Your task to perform on an android device: Go to Yahoo.com Image 0: 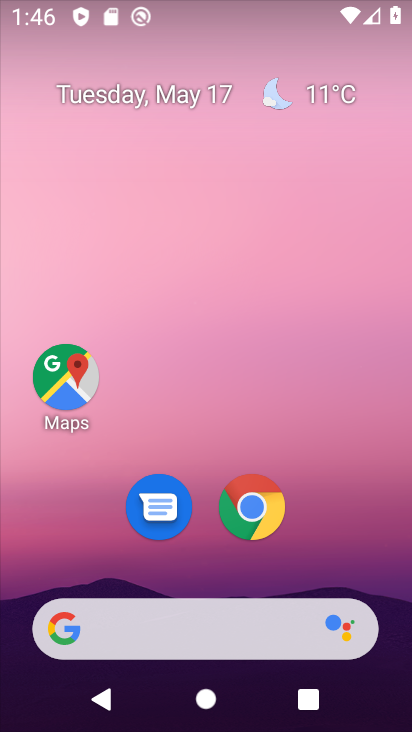
Step 0: click (255, 501)
Your task to perform on an android device: Go to Yahoo.com Image 1: 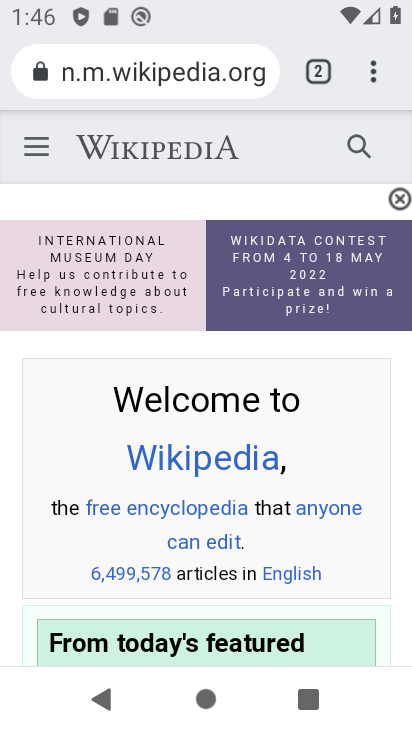
Step 1: click (318, 80)
Your task to perform on an android device: Go to Yahoo.com Image 2: 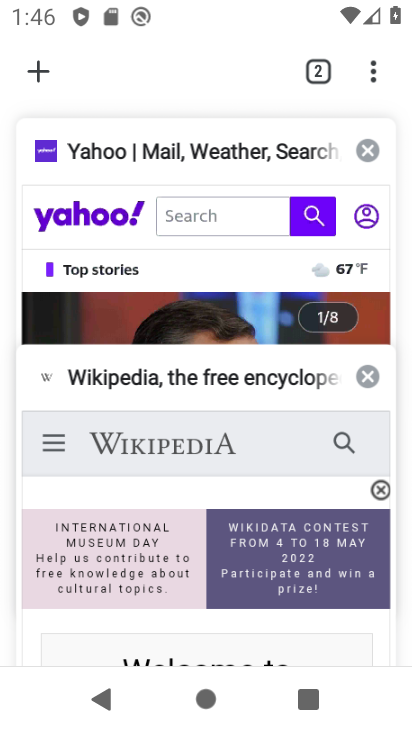
Step 2: click (70, 182)
Your task to perform on an android device: Go to Yahoo.com Image 3: 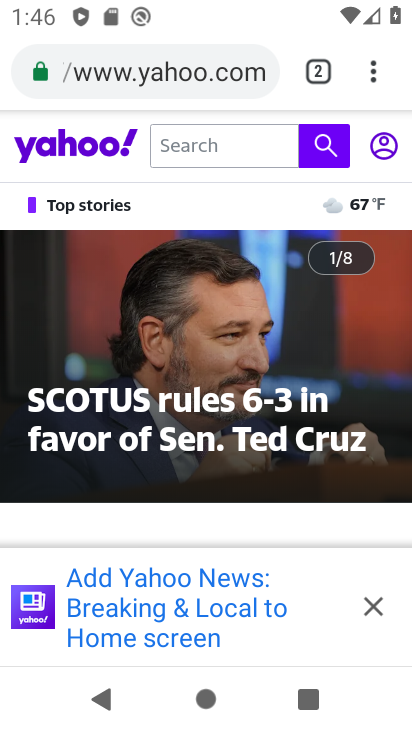
Step 3: task complete